Your task to perform on an android device: turn off notifications settings in the gmail app Image 0: 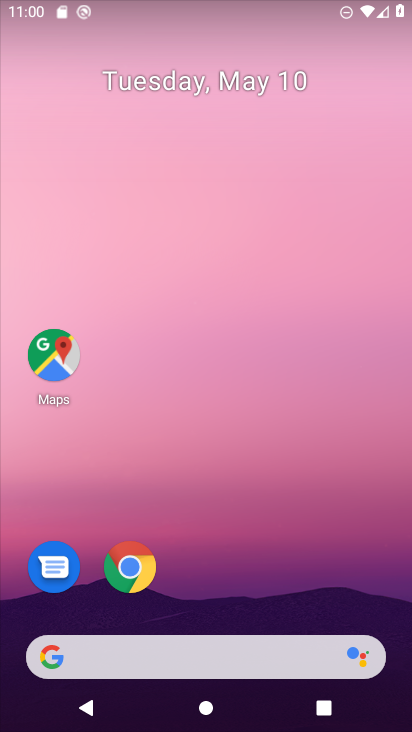
Step 0: drag from (222, 593) to (226, 146)
Your task to perform on an android device: turn off notifications settings in the gmail app Image 1: 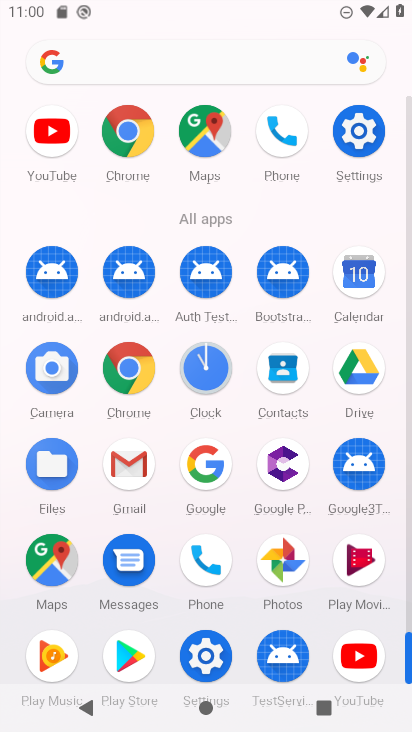
Step 1: click (138, 473)
Your task to perform on an android device: turn off notifications settings in the gmail app Image 2: 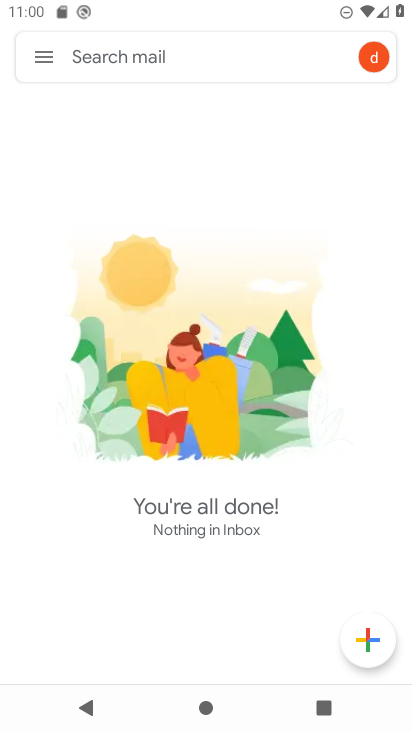
Step 2: click (27, 60)
Your task to perform on an android device: turn off notifications settings in the gmail app Image 3: 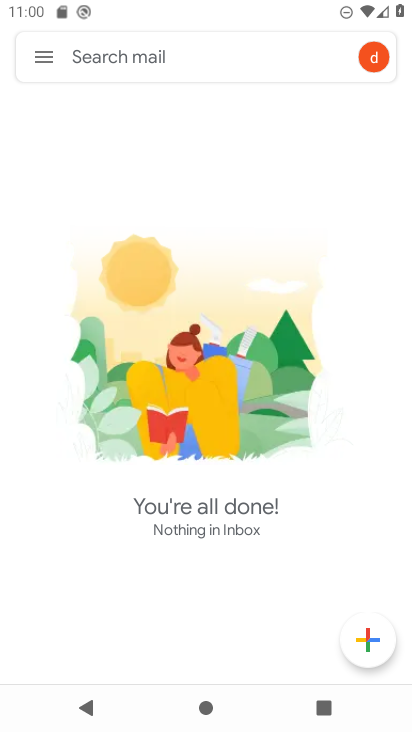
Step 3: click (32, 65)
Your task to perform on an android device: turn off notifications settings in the gmail app Image 4: 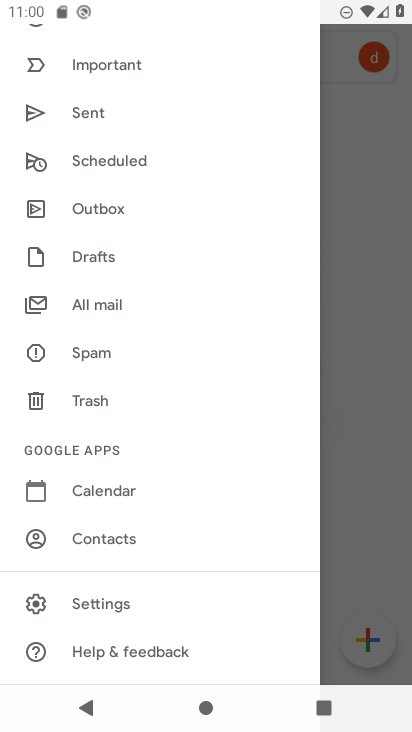
Step 4: click (132, 602)
Your task to perform on an android device: turn off notifications settings in the gmail app Image 5: 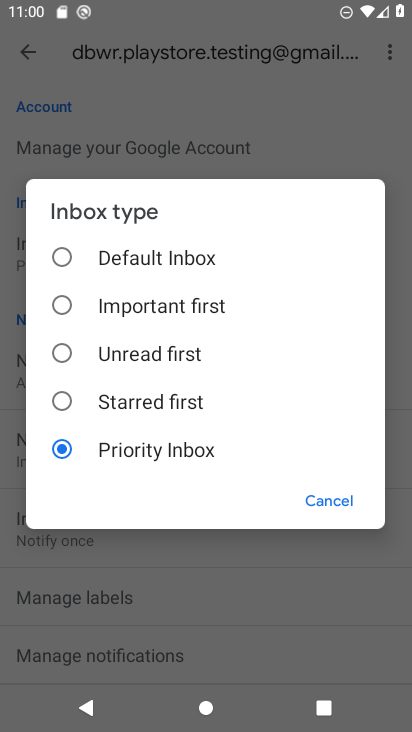
Step 5: press back button
Your task to perform on an android device: turn off notifications settings in the gmail app Image 6: 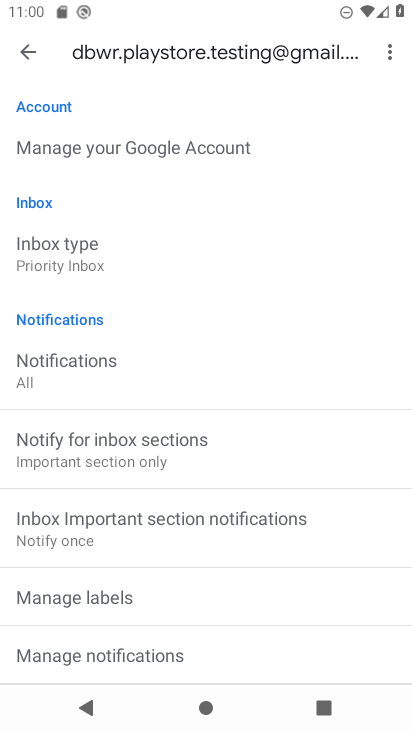
Step 6: click (111, 383)
Your task to perform on an android device: turn off notifications settings in the gmail app Image 7: 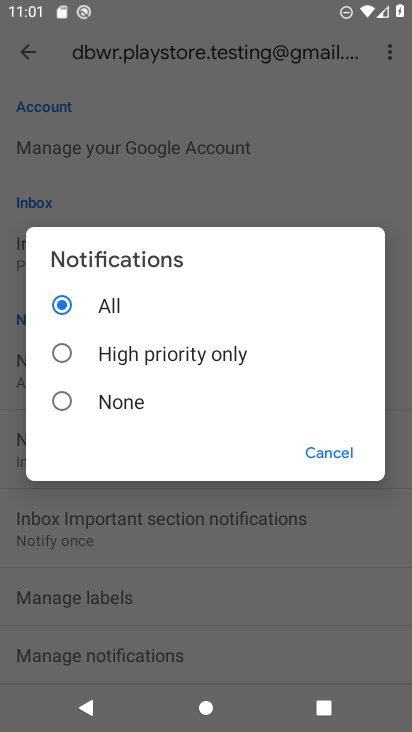
Step 7: click (138, 413)
Your task to perform on an android device: turn off notifications settings in the gmail app Image 8: 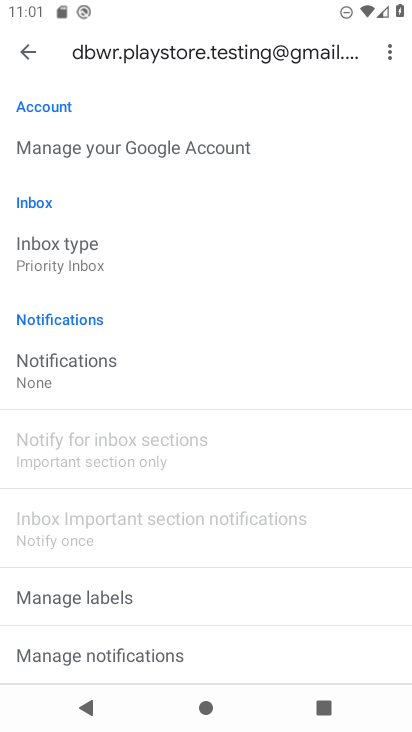
Step 8: task complete